Your task to perform on an android device: Open privacy settings Image 0: 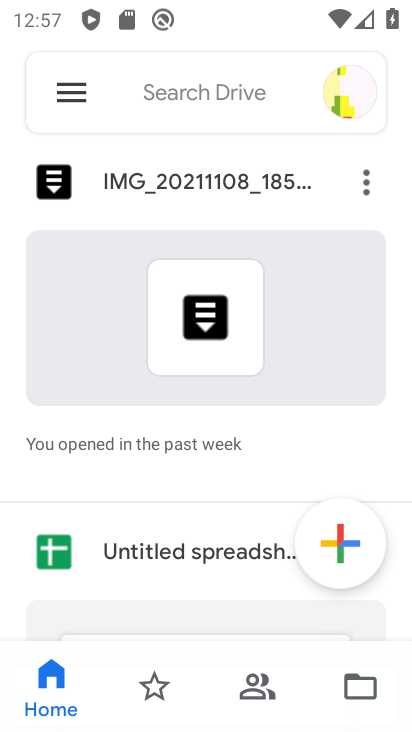
Step 0: press home button
Your task to perform on an android device: Open privacy settings Image 1: 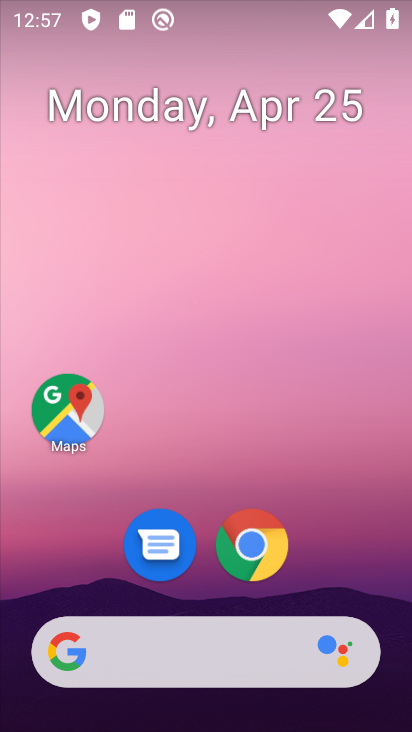
Step 1: drag from (315, 539) to (248, 69)
Your task to perform on an android device: Open privacy settings Image 2: 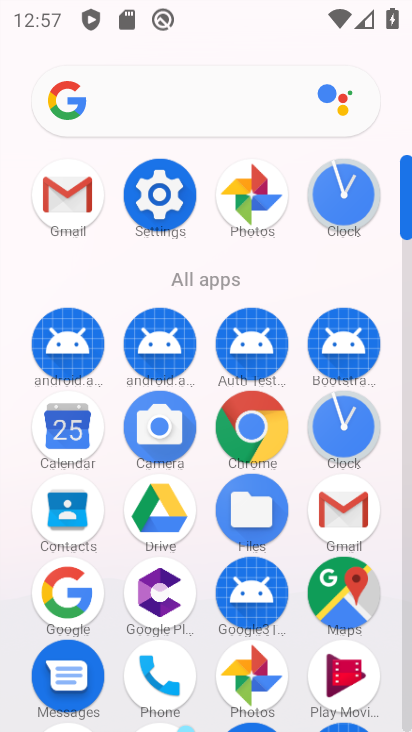
Step 2: click (169, 212)
Your task to perform on an android device: Open privacy settings Image 3: 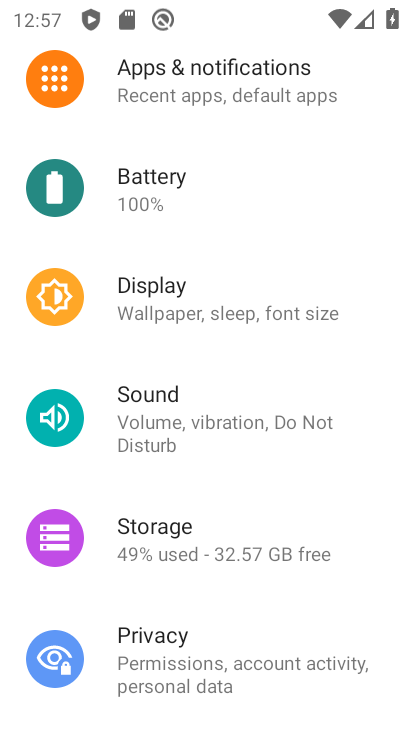
Step 3: click (260, 661)
Your task to perform on an android device: Open privacy settings Image 4: 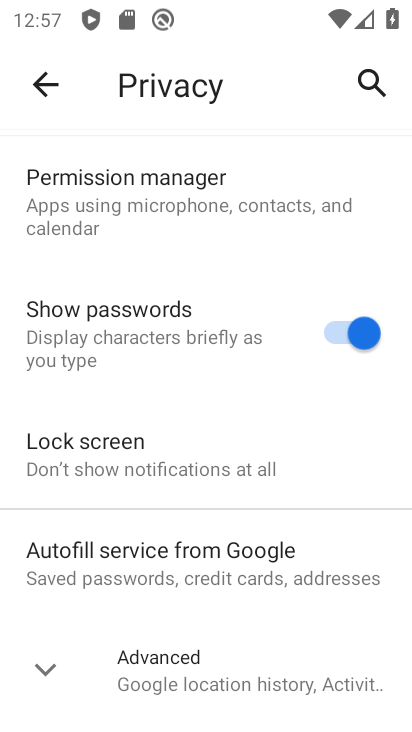
Step 4: task complete